Your task to perform on an android device: change your default location settings in chrome Image 0: 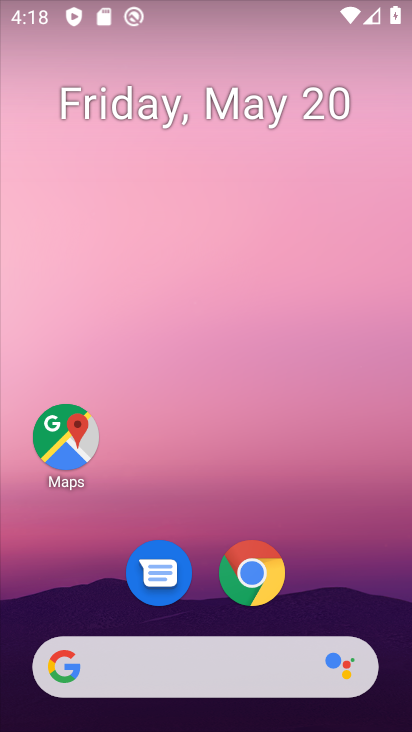
Step 0: drag from (304, 707) to (270, 197)
Your task to perform on an android device: change your default location settings in chrome Image 1: 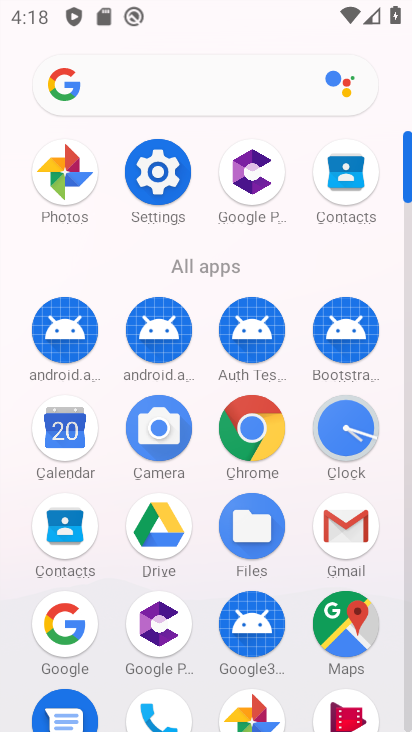
Step 1: click (250, 426)
Your task to perform on an android device: change your default location settings in chrome Image 2: 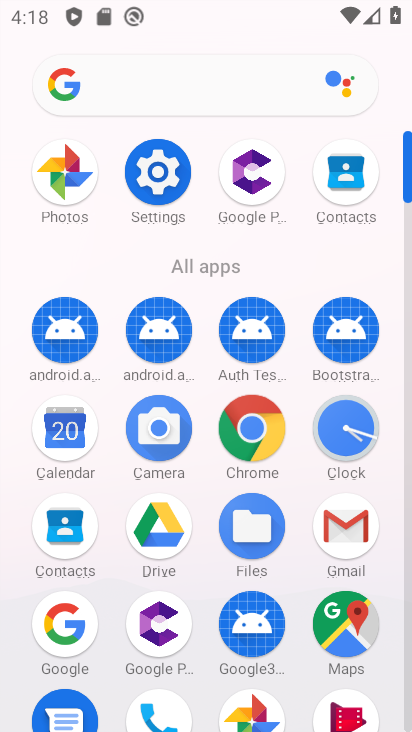
Step 2: click (250, 426)
Your task to perform on an android device: change your default location settings in chrome Image 3: 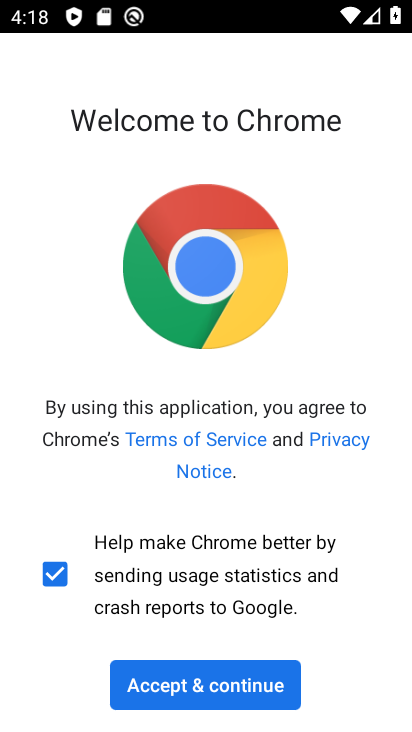
Step 3: click (199, 680)
Your task to perform on an android device: change your default location settings in chrome Image 4: 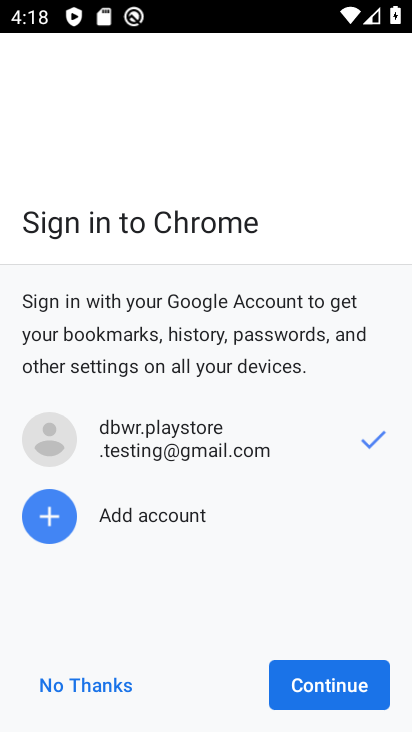
Step 4: click (334, 666)
Your task to perform on an android device: change your default location settings in chrome Image 5: 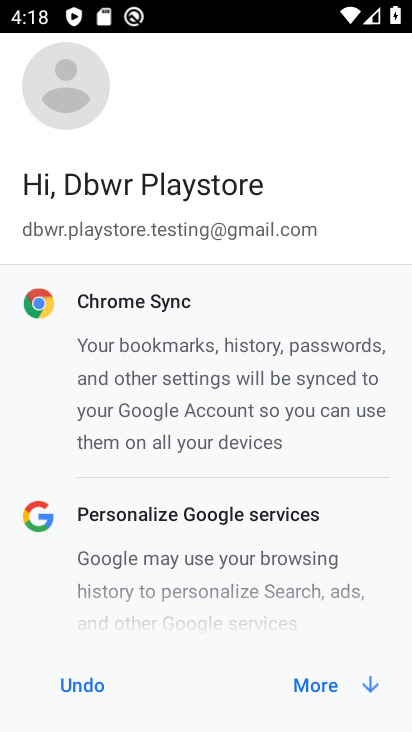
Step 5: click (320, 687)
Your task to perform on an android device: change your default location settings in chrome Image 6: 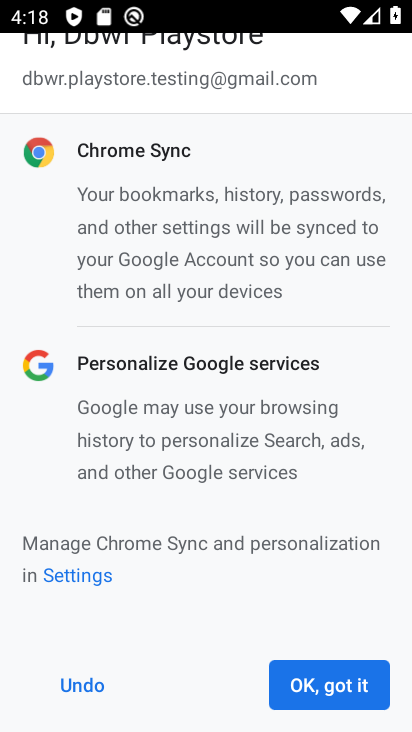
Step 6: click (325, 685)
Your task to perform on an android device: change your default location settings in chrome Image 7: 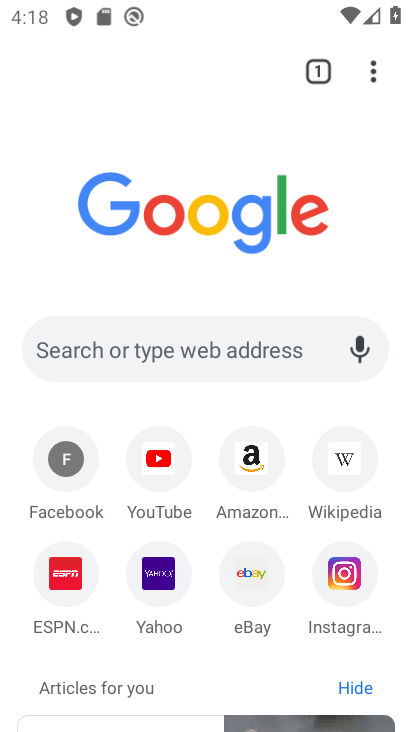
Step 7: drag from (369, 67) to (97, 594)
Your task to perform on an android device: change your default location settings in chrome Image 8: 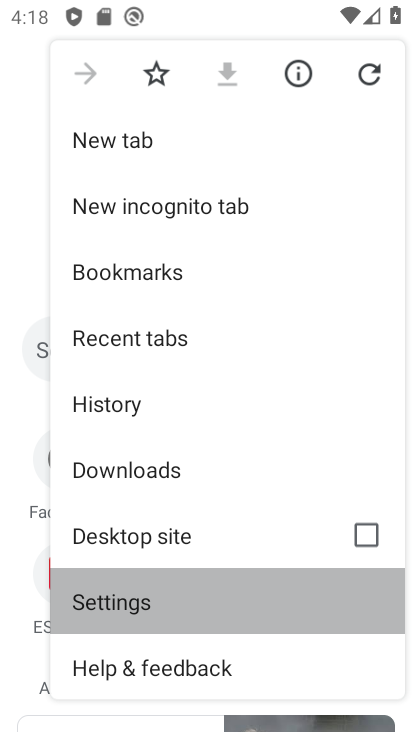
Step 8: click (96, 593)
Your task to perform on an android device: change your default location settings in chrome Image 9: 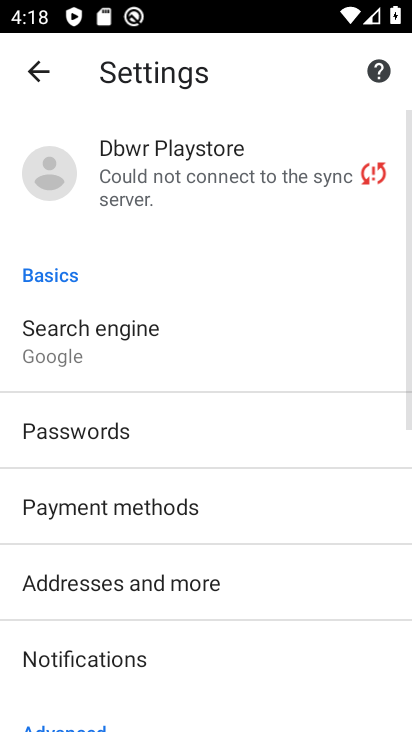
Step 9: drag from (94, 477) to (101, 188)
Your task to perform on an android device: change your default location settings in chrome Image 10: 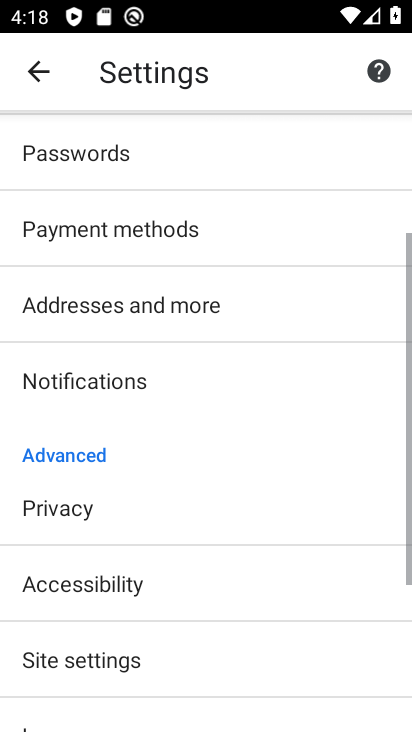
Step 10: drag from (112, 461) to (154, 159)
Your task to perform on an android device: change your default location settings in chrome Image 11: 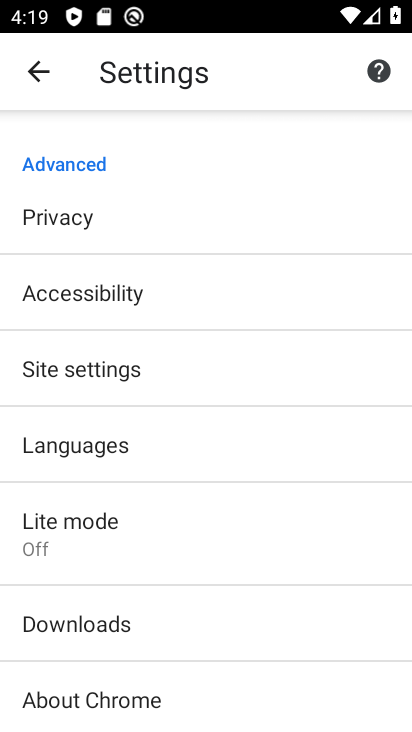
Step 11: click (58, 442)
Your task to perform on an android device: change your default location settings in chrome Image 12: 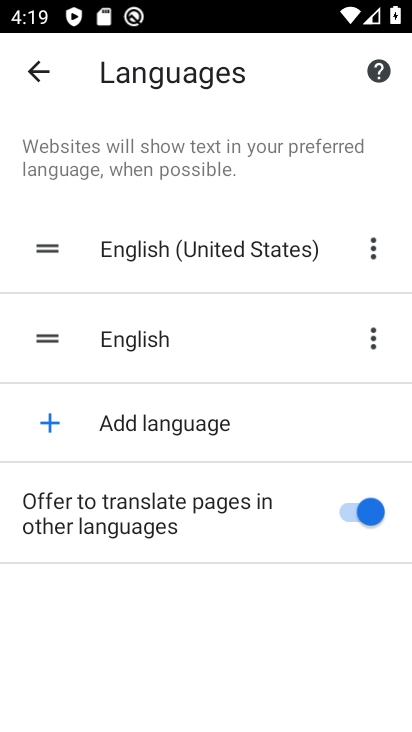
Step 12: click (35, 68)
Your task to perform on an android device: change your default location settings in chrome Image 13: 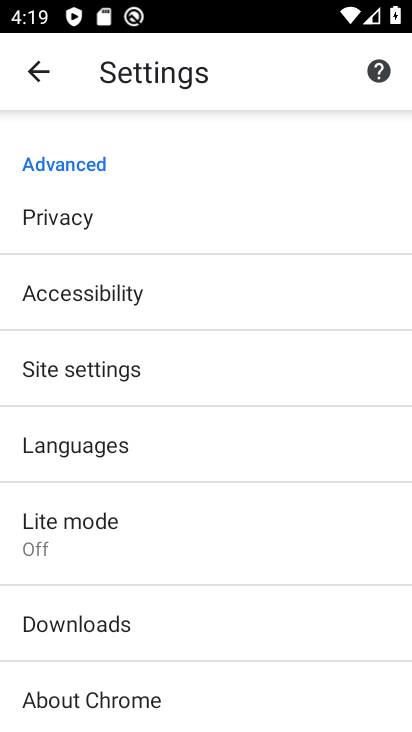
Step 13: click (81, 360)
Your task to perform on an android device: change your default location settings in chrome Image 14: 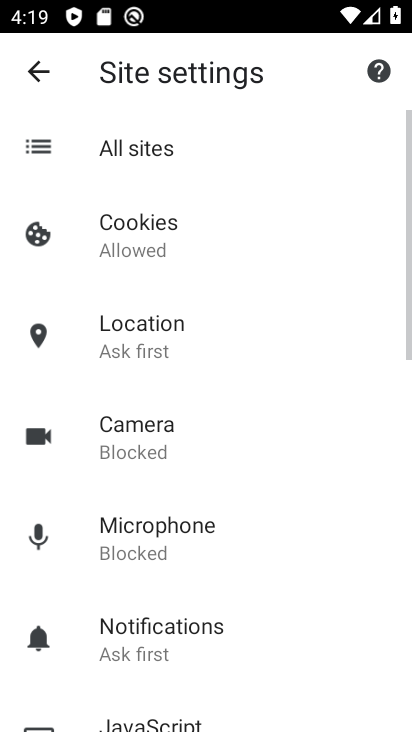
Step 14: click (152, 320)
Your task to perform on an android device: change your default location settings in chrome Image 15: 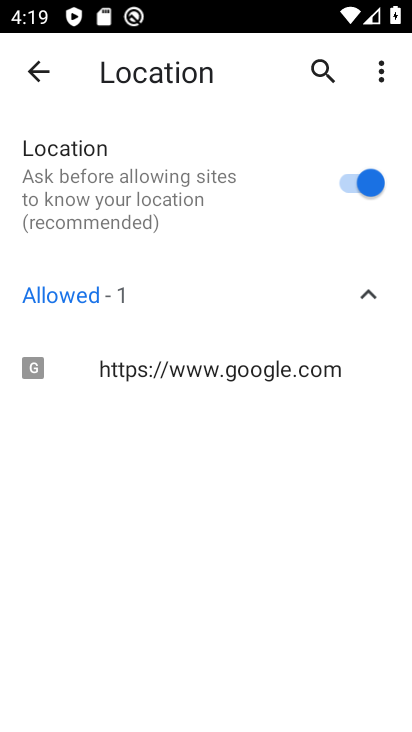
Step 15: click (380, 173)
Your task to perform on an android device: change your default location settings in chrome Image 16: 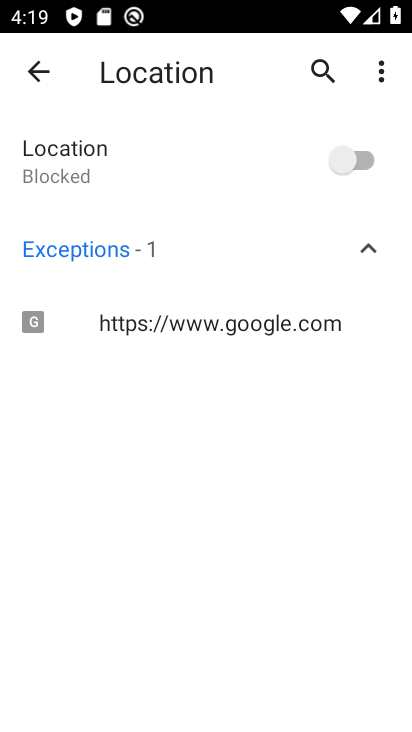
Step 16: task complete